Your task to perform on an android device: Open Chrome and go to the settings page Image 0: 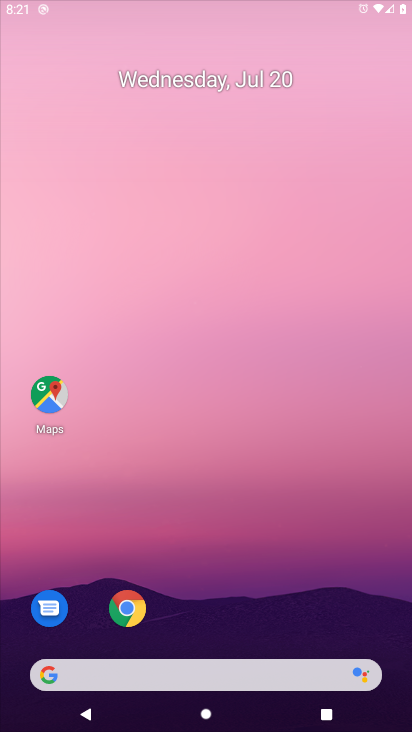
Step 0: drag from (223, 530) to (318, 10)
Your task to perform on an android device: Open Chrome and go to the settings page Image 1: 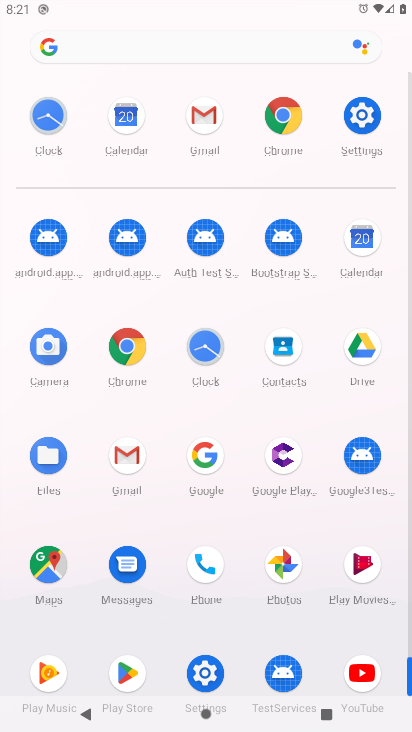
Step 1: click (129, 367)
Your task to perform on an android device: Open Chrome and go to the settings page Image 2: 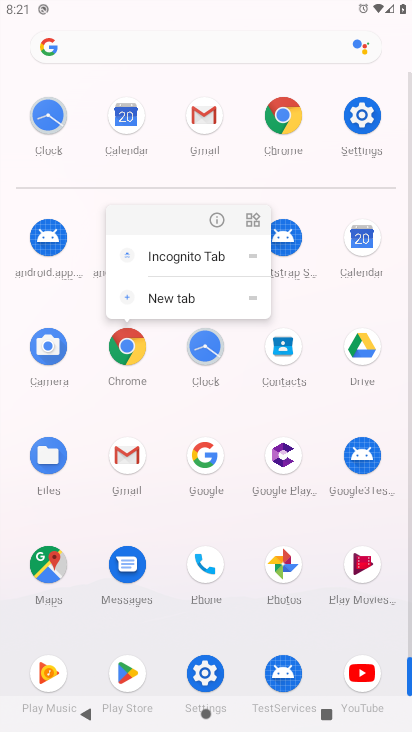
Step 2: click (129, 367)
Your task to perform on an android device: Open Chrome and go to the settings page Image 3: 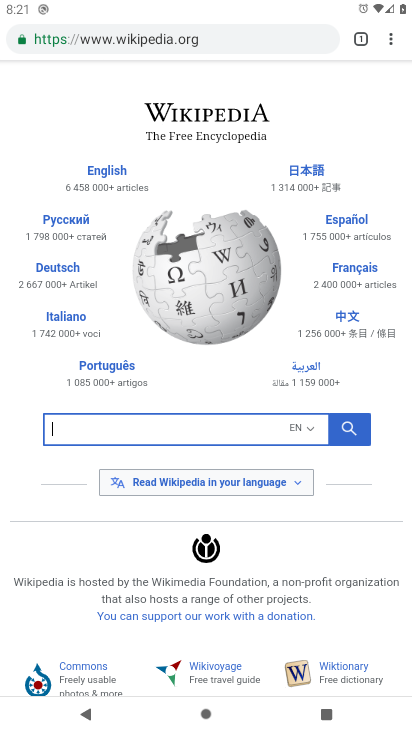
Step 3: click (391, 39)
Your task to perform on an android device: Open Chrome and go to the settings page Image 4: 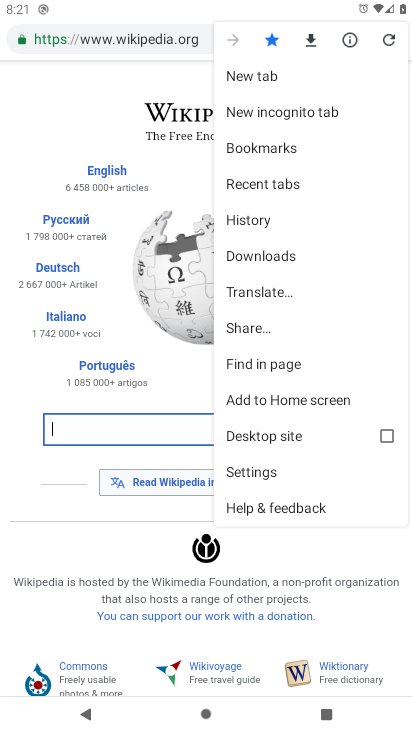
Step 4: click (257, 469)
Your task to perform on an android device: Open Chrome and go to the settings page Image 5: 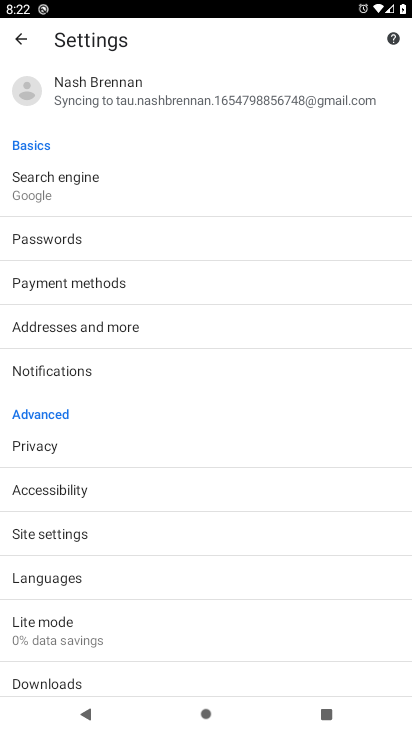
Step 5: task complete